Your task to perform on an android device: see sites visited before in the chrome app Image 0: 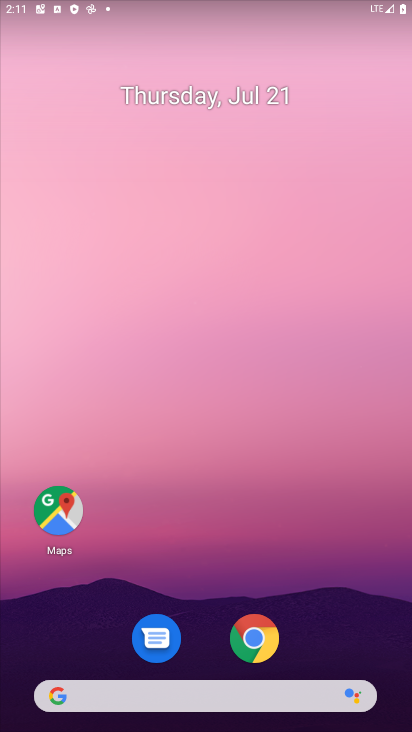
Step 0: click (256, 639)
Your task to perform on an android device: see sites visited before in the chrome app Image 1: 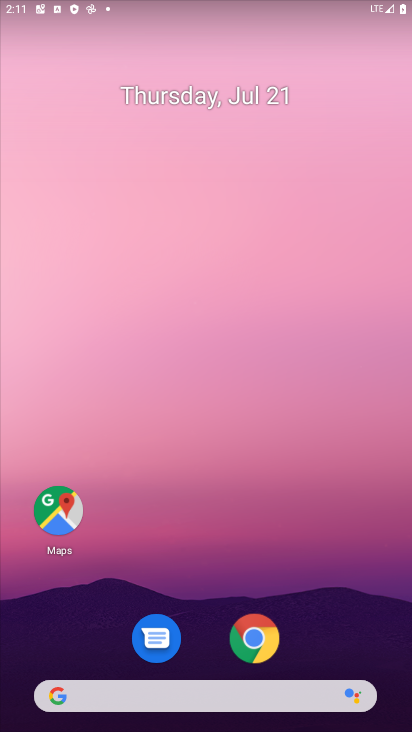
Step 1: click (256, 639)
Your task to perform on an android device: see sites visited before in the chrome app Image 2: 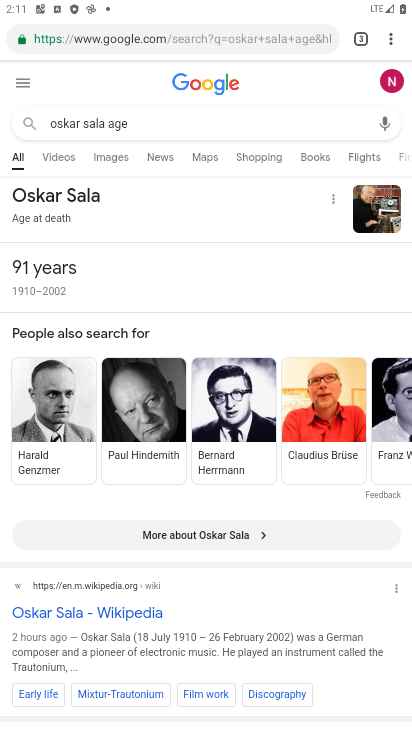
Step 2: click (390, 40)
Your task to perform on an android device: see sites visited before in the chrome app Image 3: 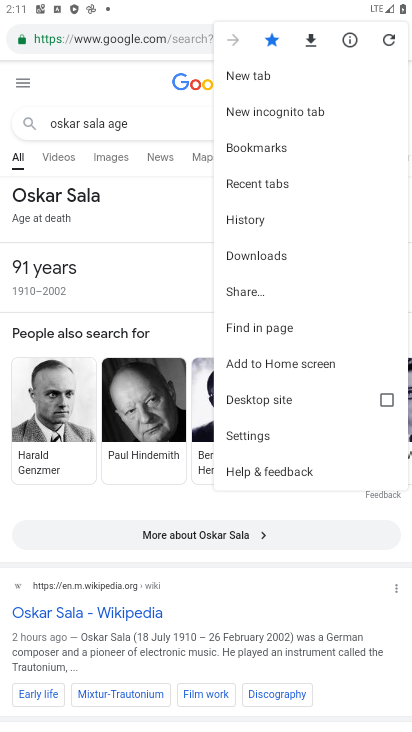
Step 3: click (253, 187)
Your task to perform on an android device: see sites visited before in the chrome app Image 4: 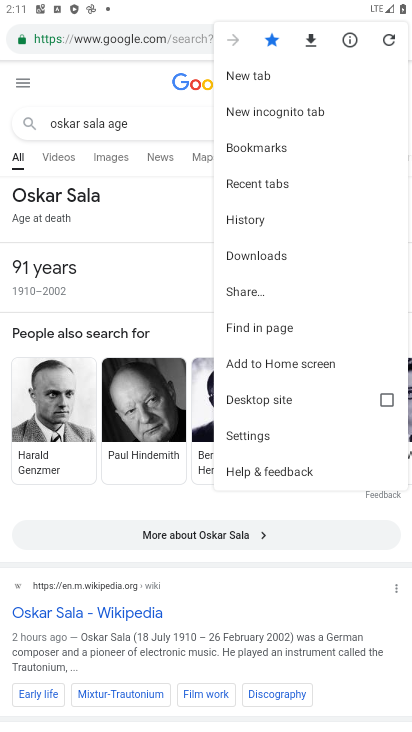
Step 4: click (253, 187)
Your task to perform on an android device: see sites visited before in the chrome app Image 5: 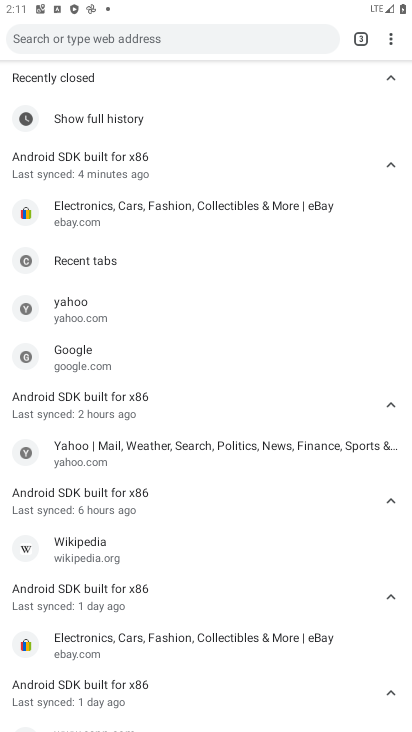
Step 5: task complete